Your task to perform on an android device: add a label to a message in the gmail app Image 0: 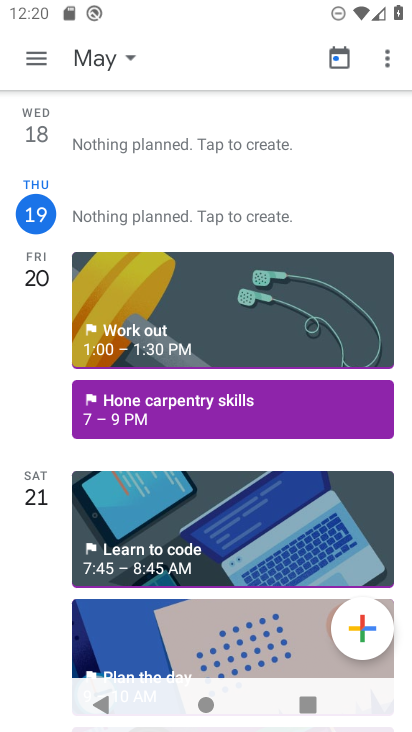
Step 0: press home button
Your task to perform on an android device: add a label to a message in the gmail app Image 1: 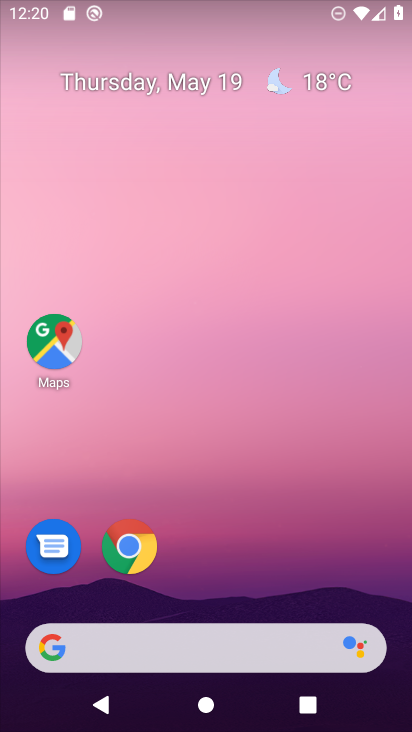
Step 1: drag from (227, 724) to (238, 215)
Your task to perform on an android device: add a label to a message in the gmail app Image 2: 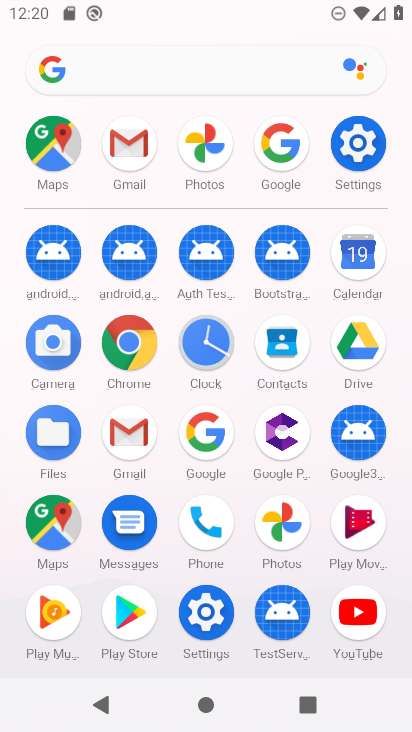
Step 2: click (126, 442)
Your task to perform on an android device: add a label to a message in the gmail app Image 3: 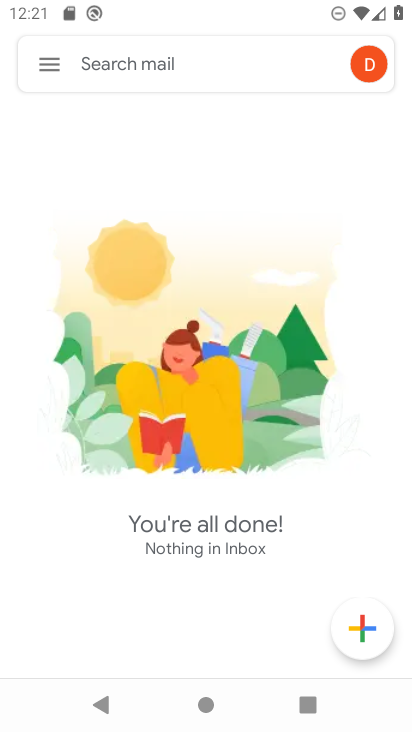
Step 3: task complete